Your task to perform on an android device: clear all cookies in the chrome app Image 0: 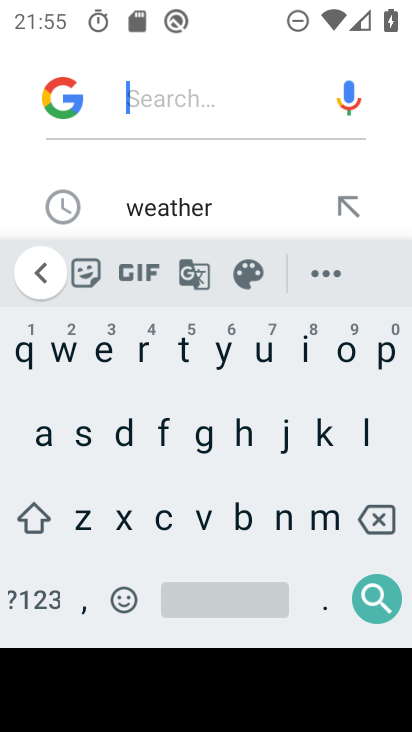
Step 0: press home button
Your task to perform on an android device: clear all cookies in the chrome app Image 1: 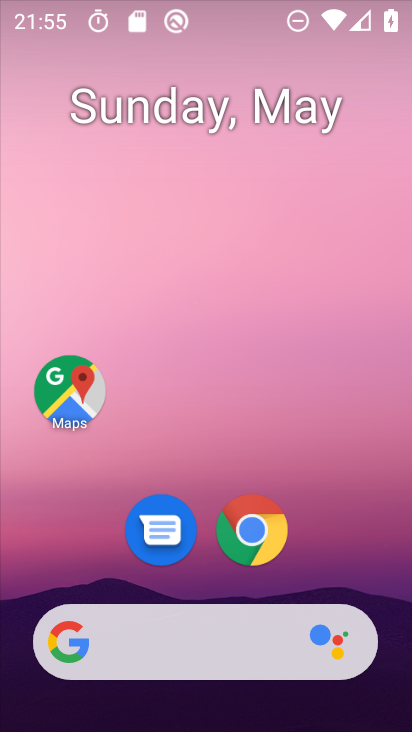
Step 1: drag from (251, 617) to (185, 171)
Your task to perform on an android device: clear all cookies in the chrome app Image 2: 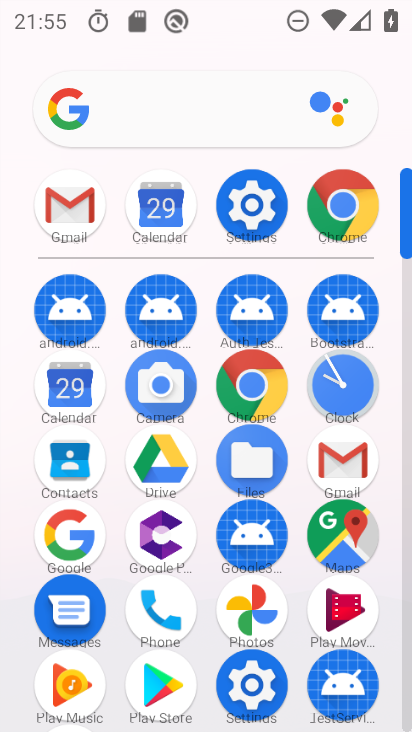
Step 2: click (351, 187)
Your task to perform on an android device: clear all cookies in the chrome app Image 3: 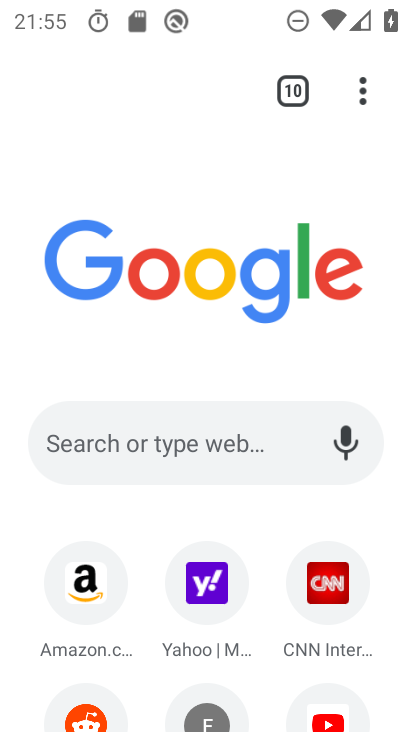
Step 3: click (350, 119)
Your task to perform on an android device: clear all cookies in the chrome app Image 4: 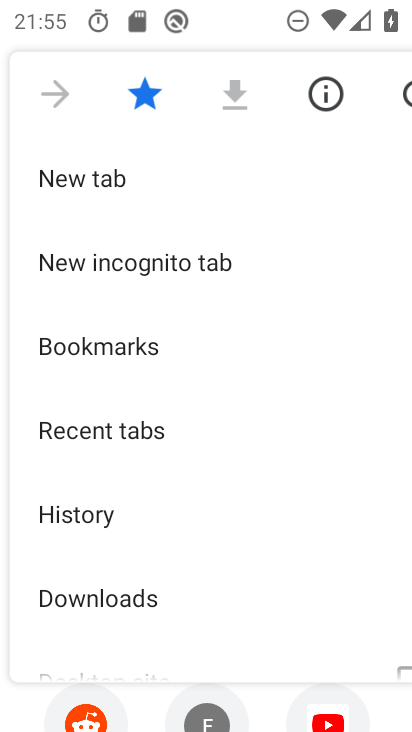
Step 4: drag from (150, 586) to (175, 296)
Your task to perform on an android device: clear all cookies in the chrome app Image 5: 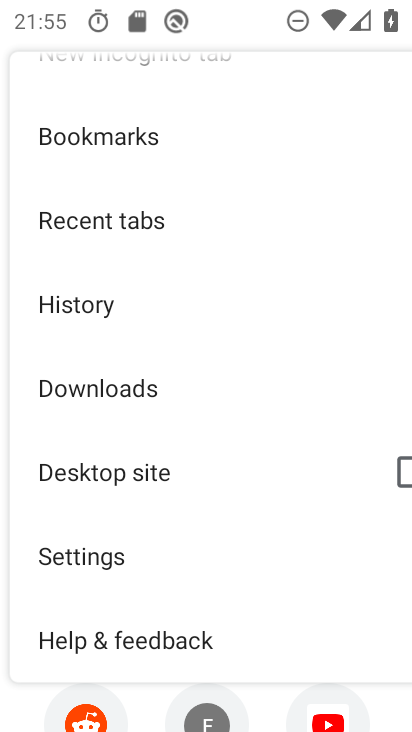
Step 5: click (89, 316)
Your task to perform on an android device: clear all cookies in the chrome app Image 6: 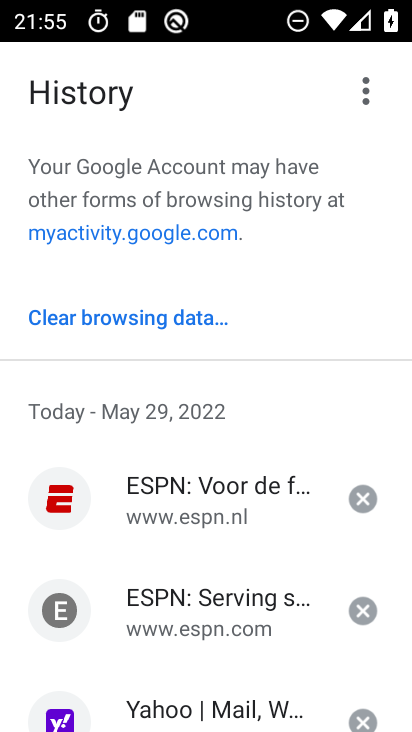
Step 6: click (86, 309)
Your task to perform on an android device: clear all cookies in the chrome app Image 7: 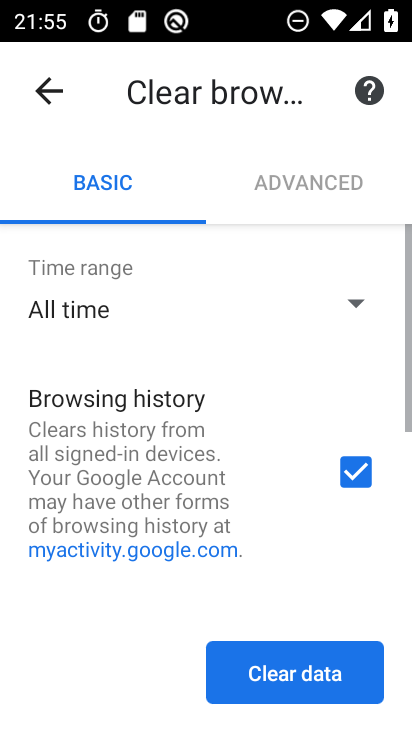
Step 7: drag from (254, 486) to (248, 216)
Your task to perform on an android device: clear all cookies in the chrome app Image 8: 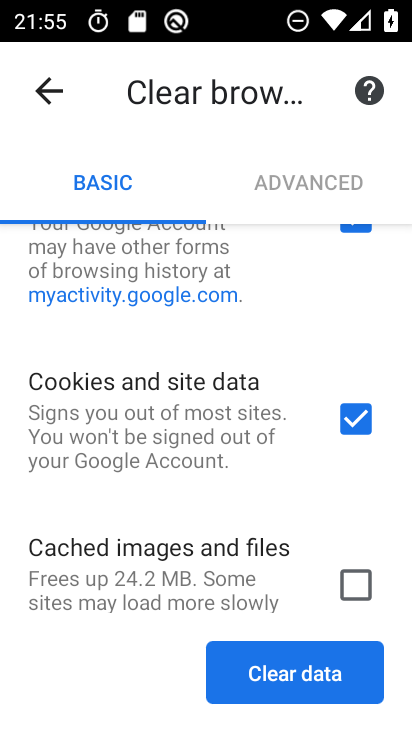
Step 8: click (302, 682)
Your task to perform on an android device: clear all cookies in the chrome app Image 9: 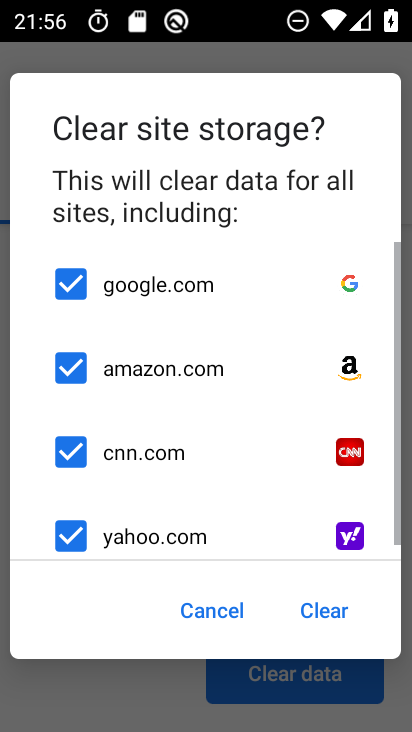
Step 9: task complete